Your task to perform on an android device: Open internet settings Image 0: 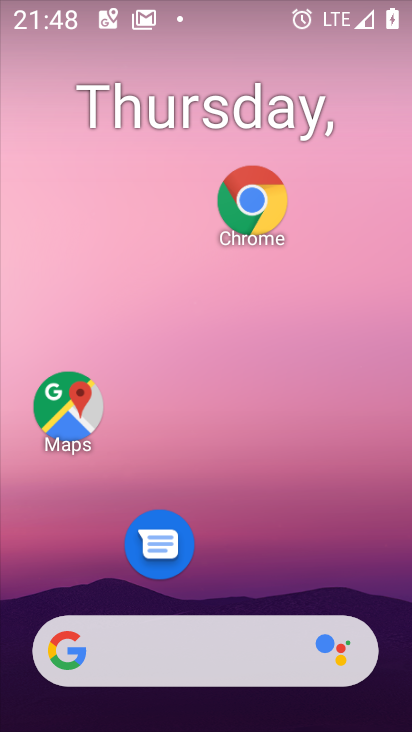
Step 0: drag from (202, 602) to (272, 0)
Your task to perform on an android device: Open internet settings Image 1: 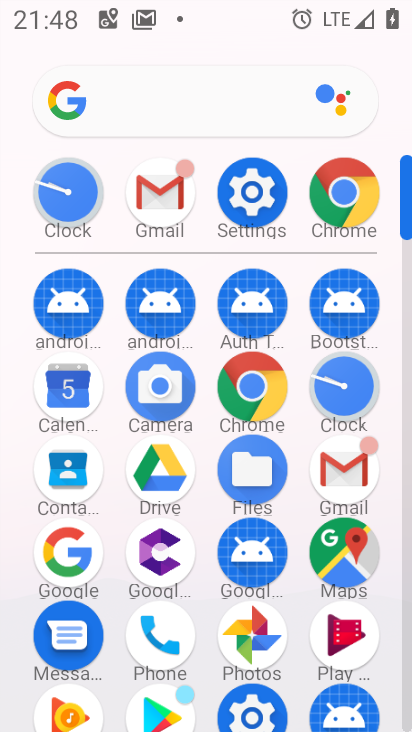
Step 1: click (251, 211)
Your task to perform on an android device: Open internet settings Image 2: 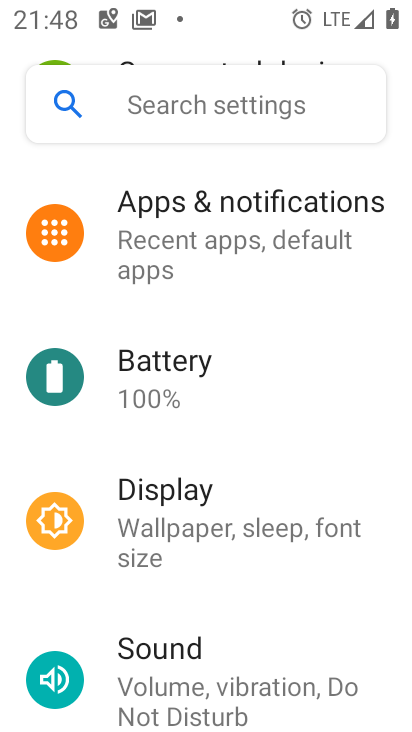
Step 2: drag from (211, 212) to (176, 608)
Your task to perform on an android device: Open internet settings Image 3: 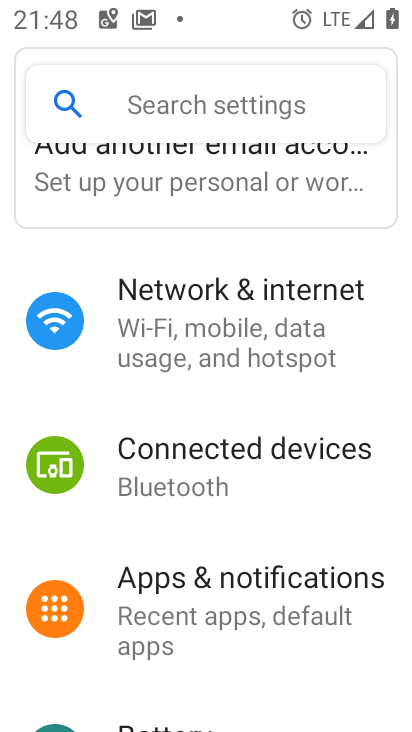
Step 3: click (241, 348)
Your task to perform on an android device: Open internet settings Image 4: 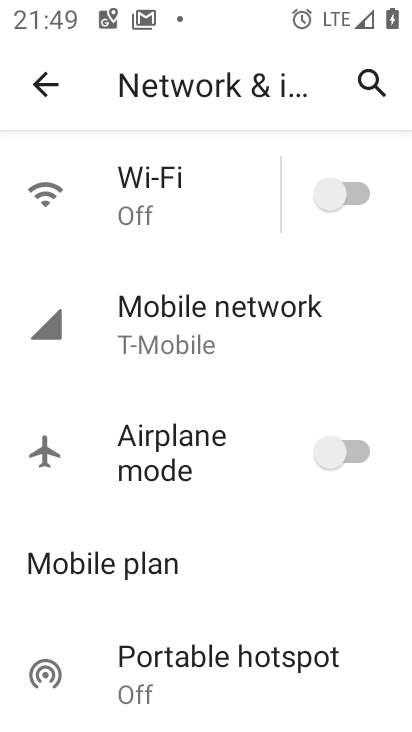
Step 4: click (203, 343)
Your task to perform on an android device: Open internet settings Image 5: 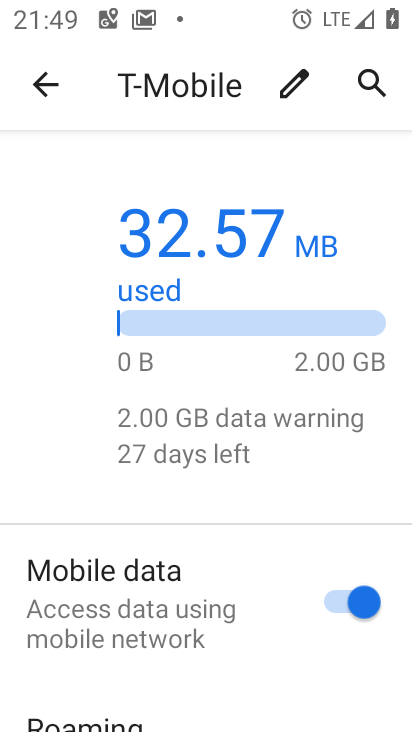
Step 5: task complete